Your task to perform on an android device: snooze an email in the gmail app Image 0: 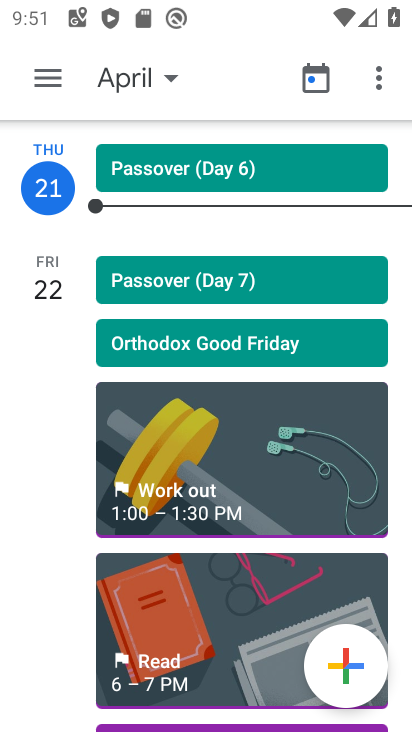
Step 0: press home button
Your task to perform on an android device: snooze an email in the gmail app Image 1: 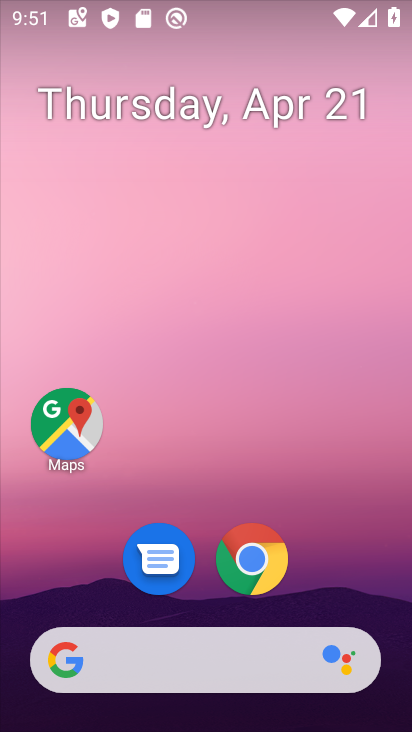
Step 1: drag from (251, 691) to (340, 266)
Your task to perform on an android device: snooze an email in the gmail app Image 2: 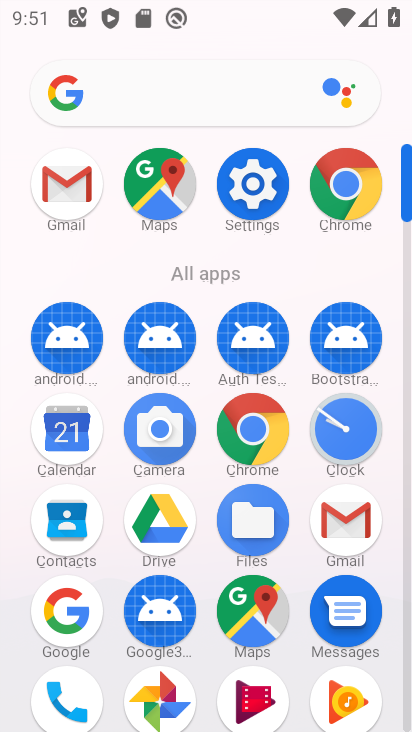
Step 2: click (71, 190)
Your task to perform on an android device: snooze an email in the gmail app Image 3: 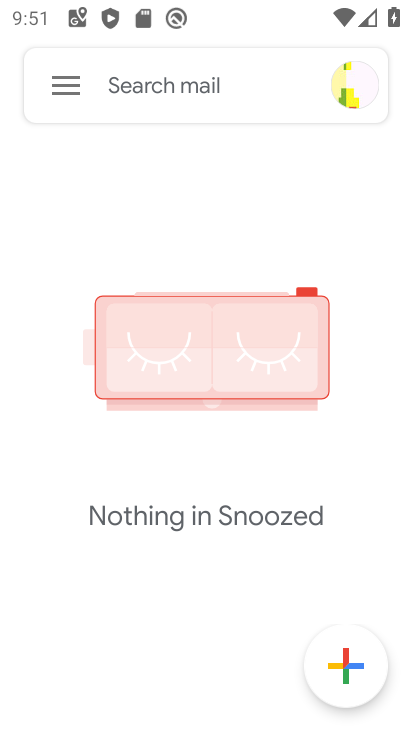
Step 3: click (84, 82)
Your task to perform on an android device: snooze an email in the gmail app Image 4: 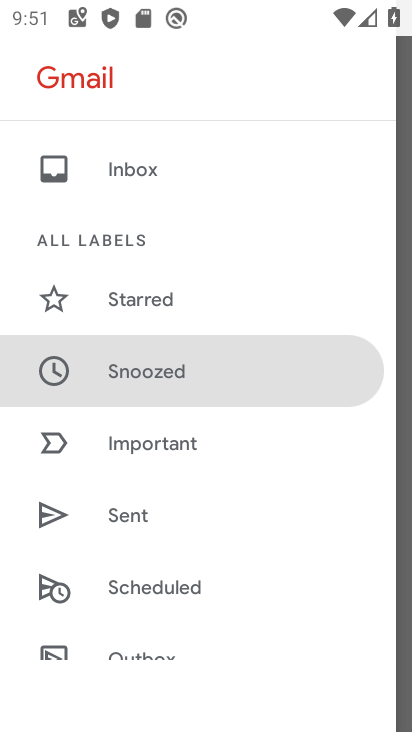
Step 4: click (151, 373)
Your task to perform on an android device: snooze an email in the gmail app Image 5: 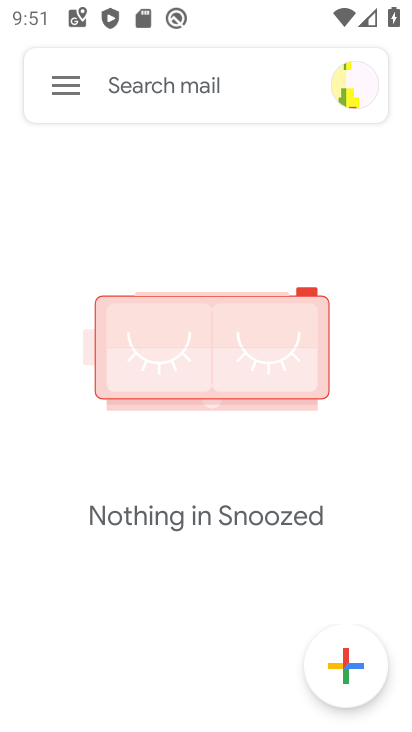
Step 5: task complete